Your task to perform on an android device: turn off javascript in the chrome app Image 0: 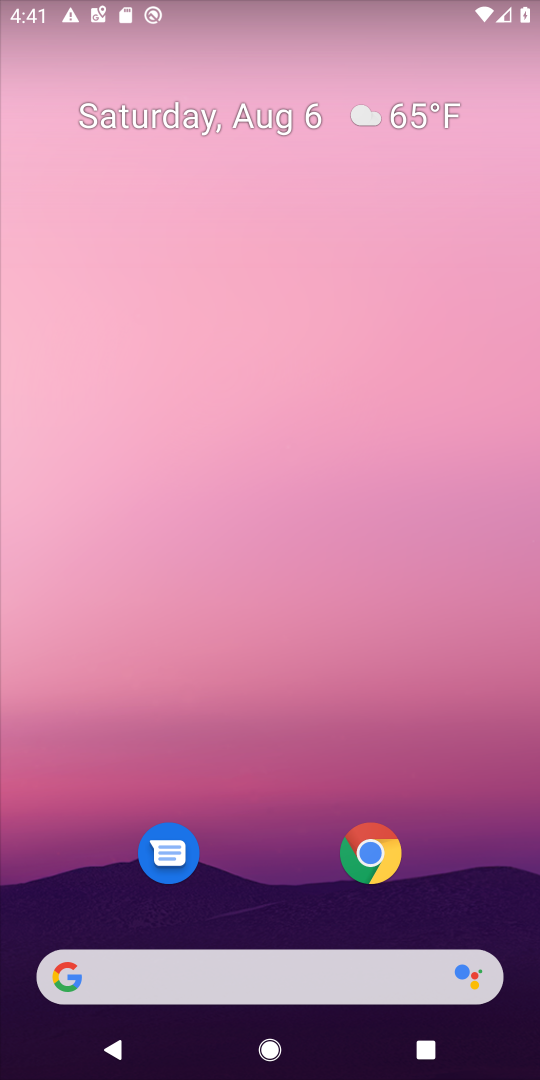
Step 0: click (399, 832)
Your task to perform on an android device: turn off javascript in the chrome app Image 1: 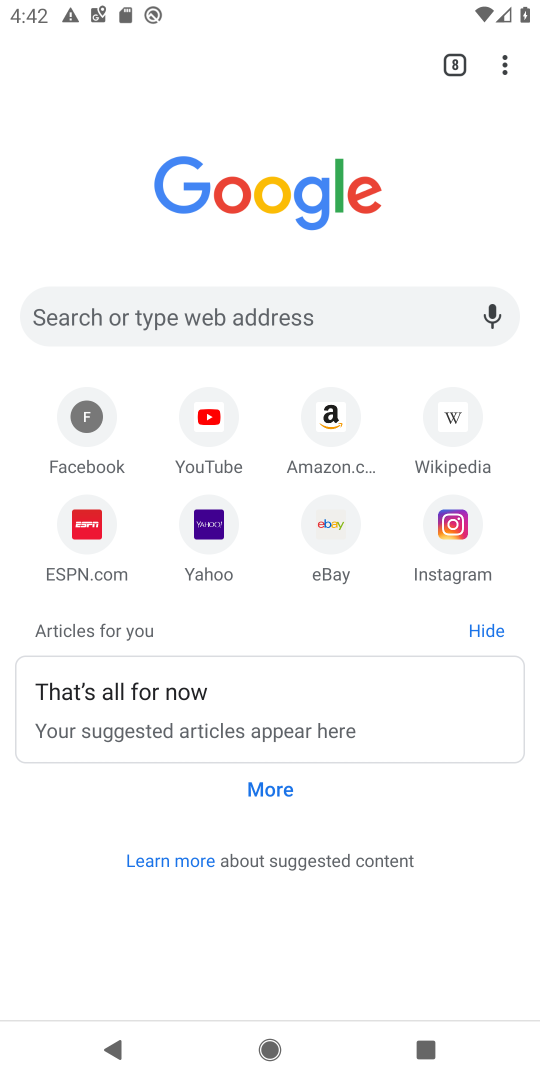
Step 1: drag from (501, 72) to (296, 546)
Your task to perform on an android device: turn off javascript in the chrome app Image 2: 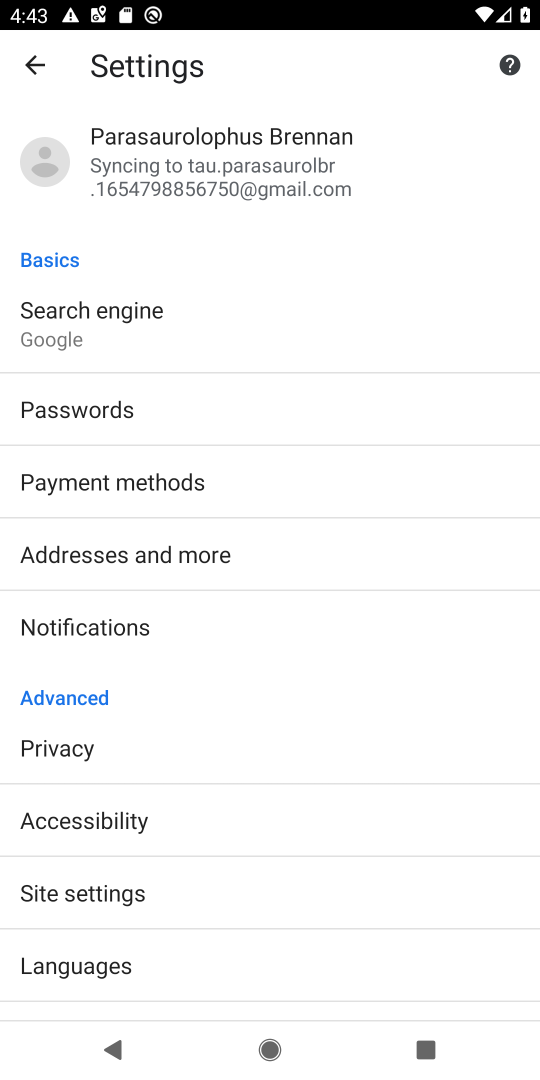
Step 2: click (122, 903)
Your task to perform on an android device: turn off javascript in the chrome app Image 3: 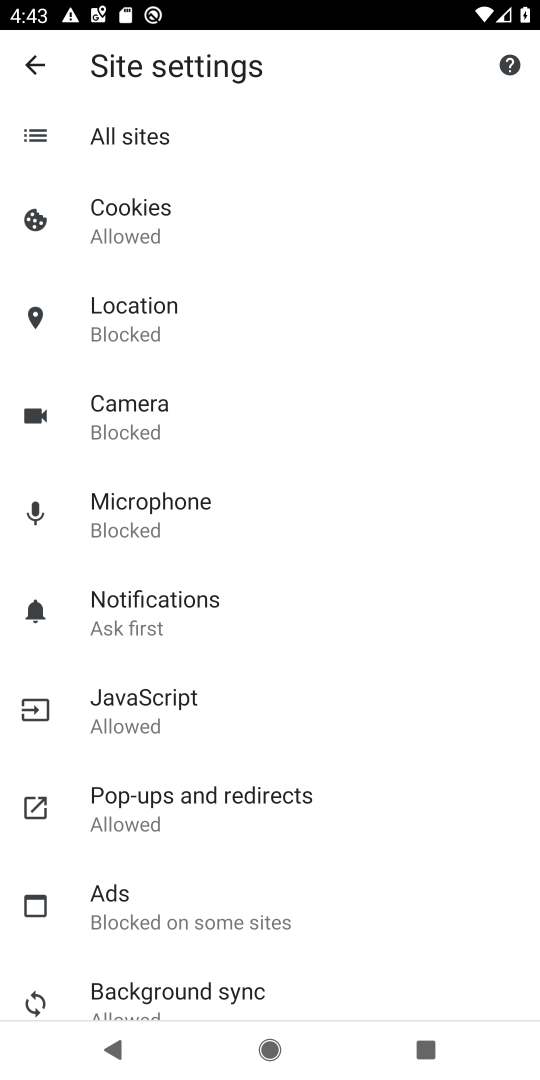
Step 3: click (128, 712)
Your task to perform on an android device: turn off javascript in the chrome app Image 4: 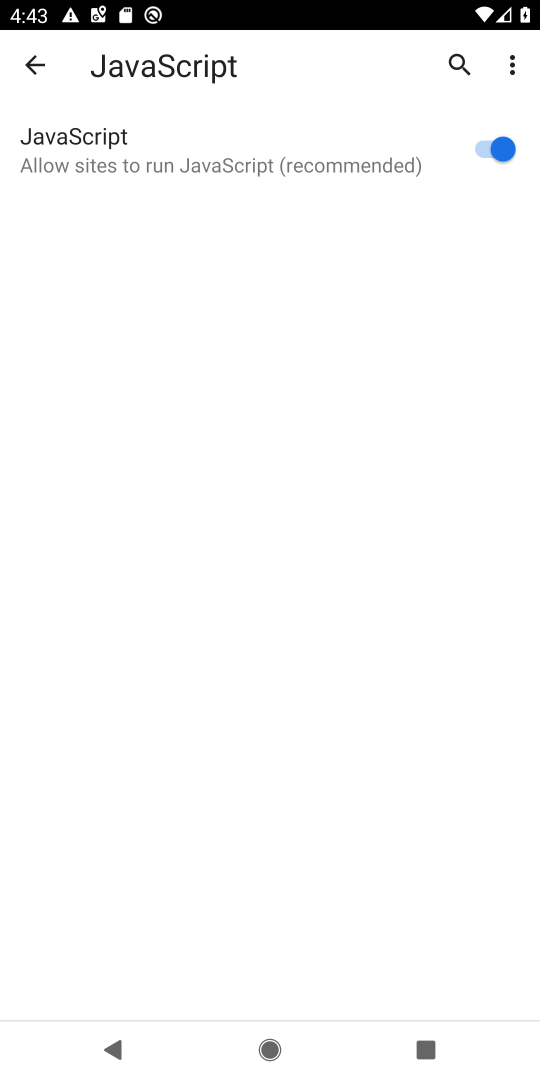
Step 4: click (502, 158)
Your task to perform on an android device: turn off javascript in the chrome app Image 5: 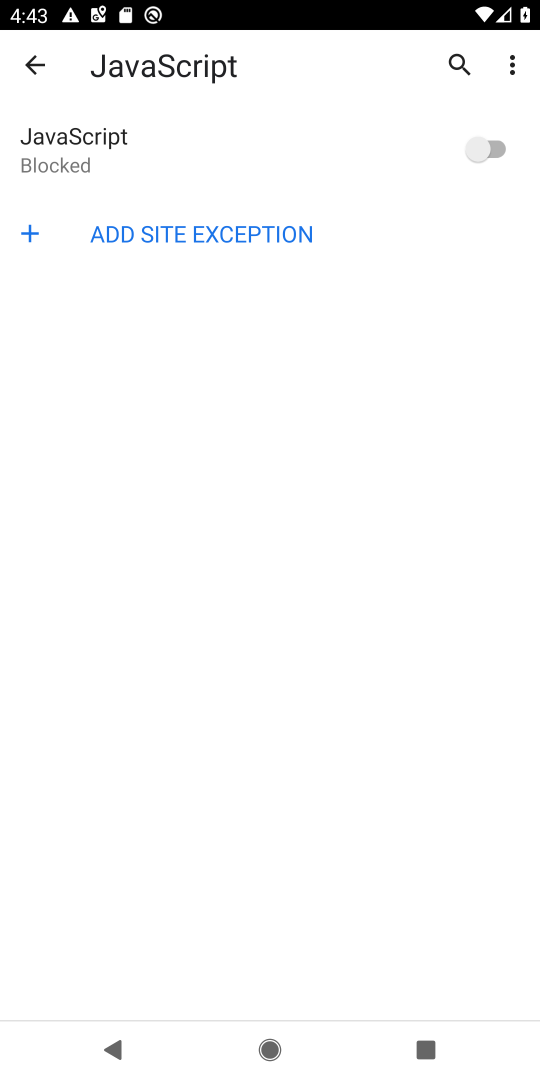
Step 5: task complete